Your task to perform on an android device: turn off location history Image 0: 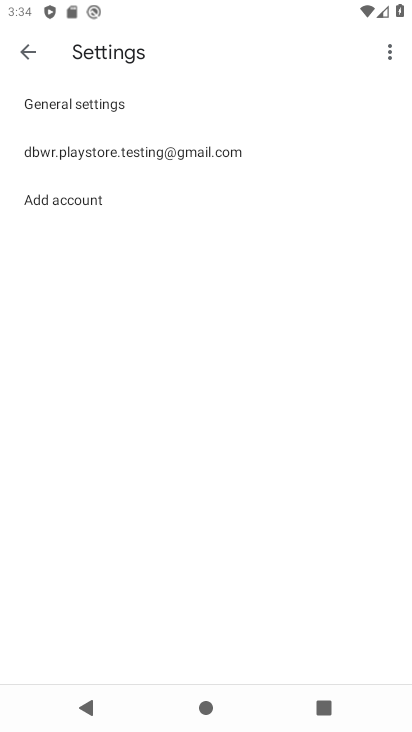
Step 0: press home button
Your task to perform on an android device: turn off location history Image 1: 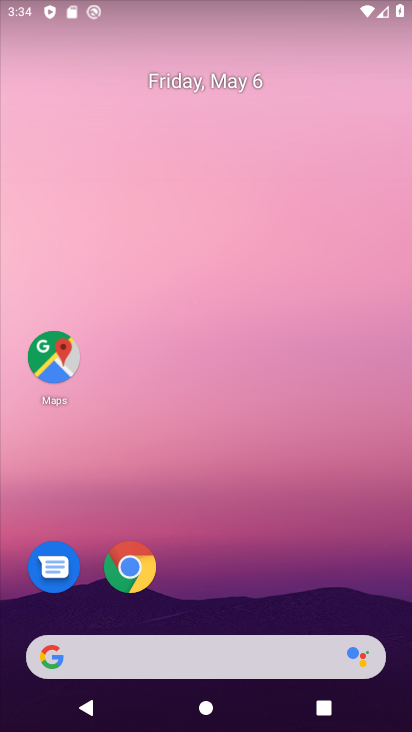
Step 1: drag from (208, 615) to (229, 46)
Your task to perform on an android device: turn off location history Image 2: 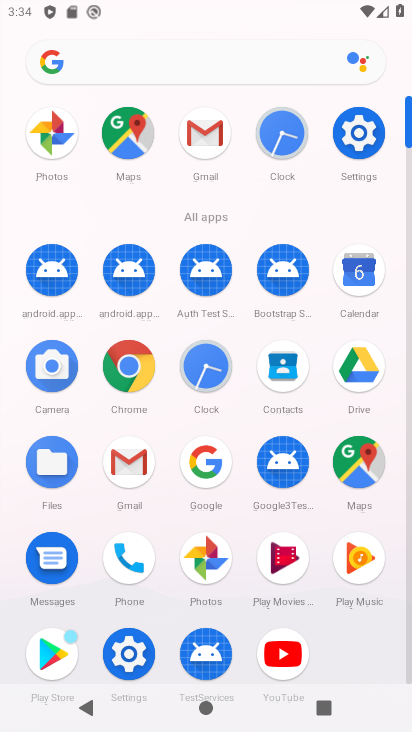
Step 2: click (366, 141)
Your task to perform on an android device: turn off location history Image 3: 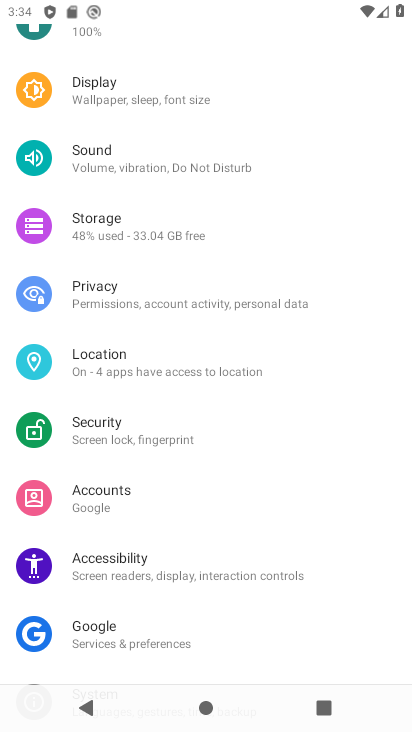
Step 3: drag from (175, 147) to (185, 291)
Your task to perform on an android device: turn off location history Image 4: 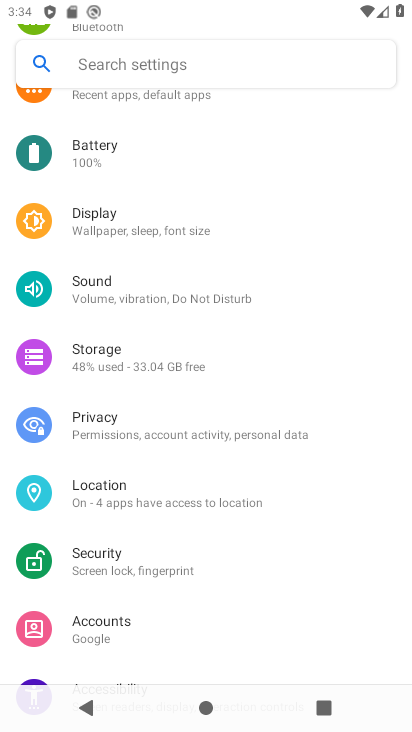
Step 4: click (162, 484)
Your task to perform on an android device: turn off location history Image 5: 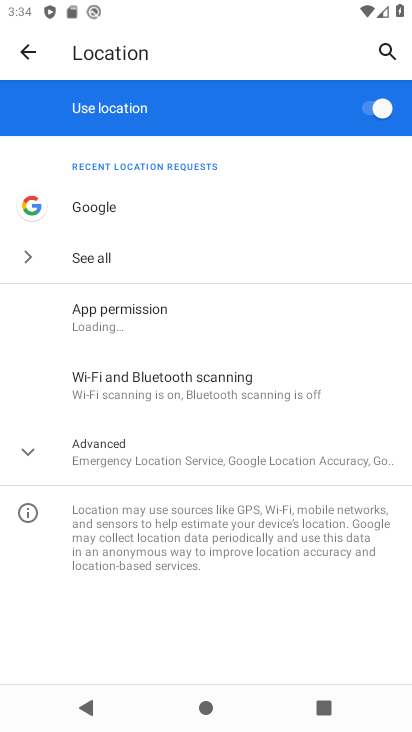
Step 5: click (162, 484)
Your task to perform on an android device: turn off location history Image 6: 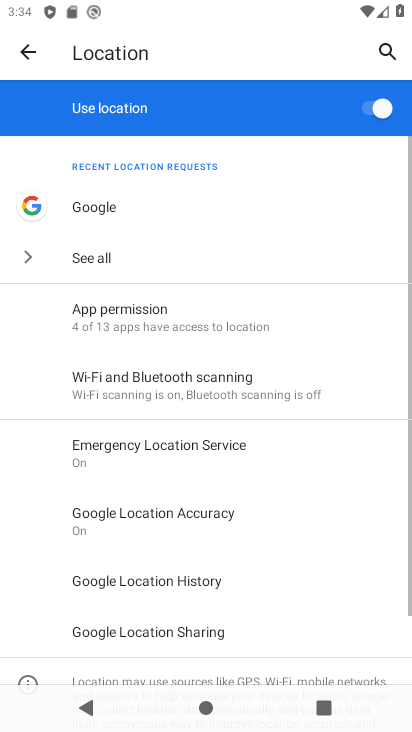
Step 6: click (195, 578)
Your task to perform on an android device: turn off location history Image 7: 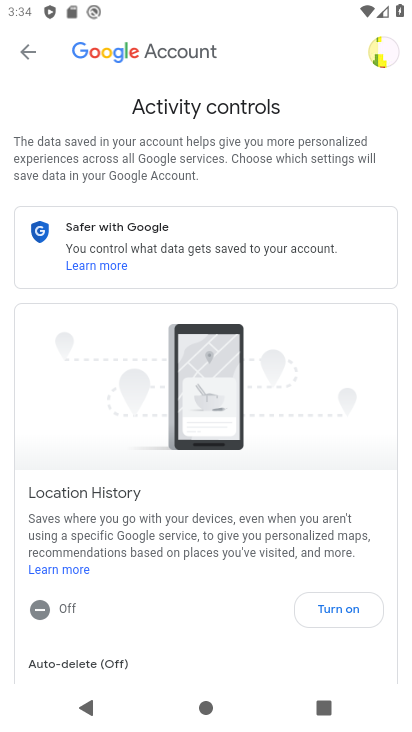
Step 7: task complete